Your task to perform on an android device: Play the last video I watched on Youtube Image 0: 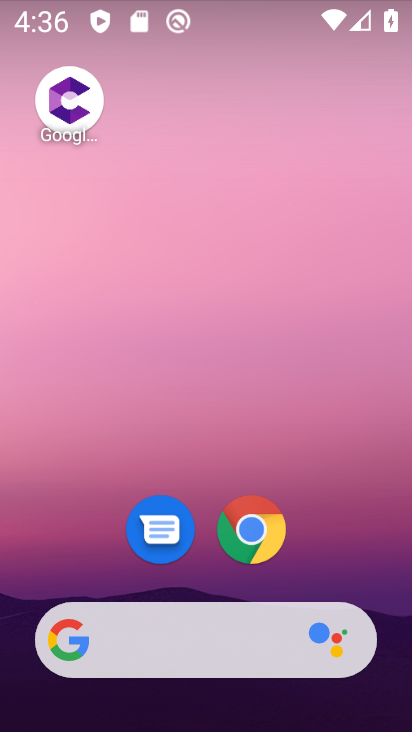
Step 0: drag from (341, 547) to (254, 84)
Your task to perform on an android device: Play the last video I watched on Youtube Image 1: 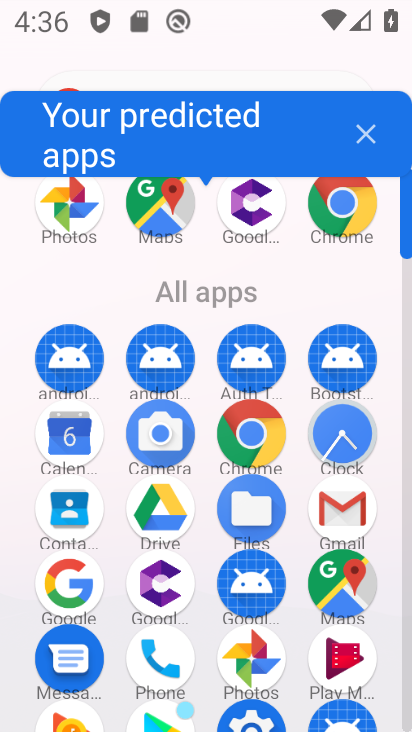
Step 1: drag from (193, 646) to (189, 254)
Your task to perform on an android device: Play the last video I watched on Youtube Image 2: 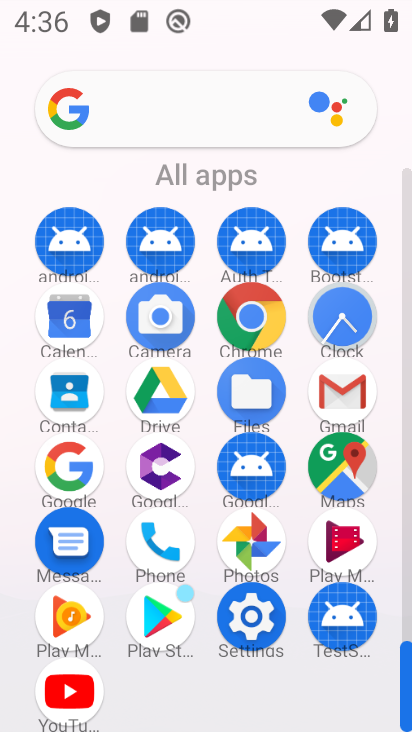
Step 2: click (77, 692)
Your task to perform on an android device: Play the last video I watched on Youtube Image 3: 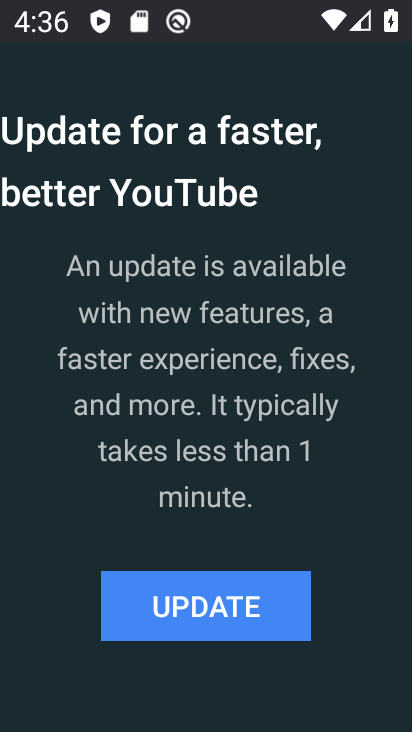
Step 3: click (240, 609)
Your task to perform on an android device: Play the last video I watched on Youtube Image 4: 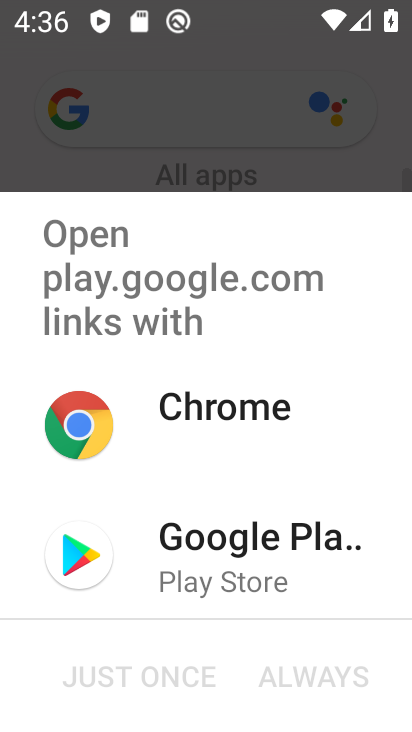
Step 4: click (206, 553)
Your task to perform on an android device: Play the last video I watched on Youtube Image 5: 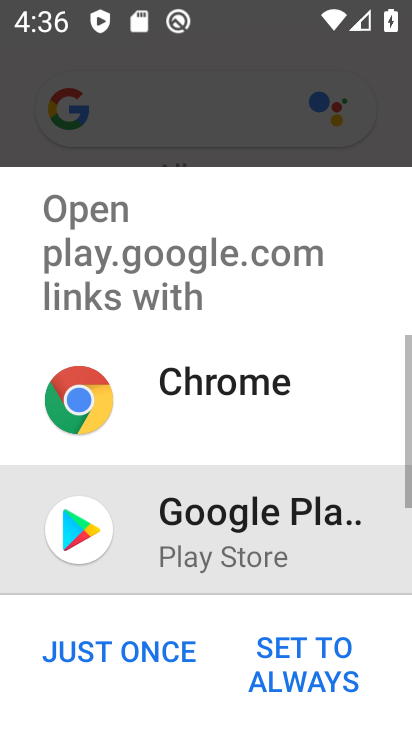
Step 5: click (113, 654)
Your task to perform on an android device: Play the last video I watched on Youtube Image 6: 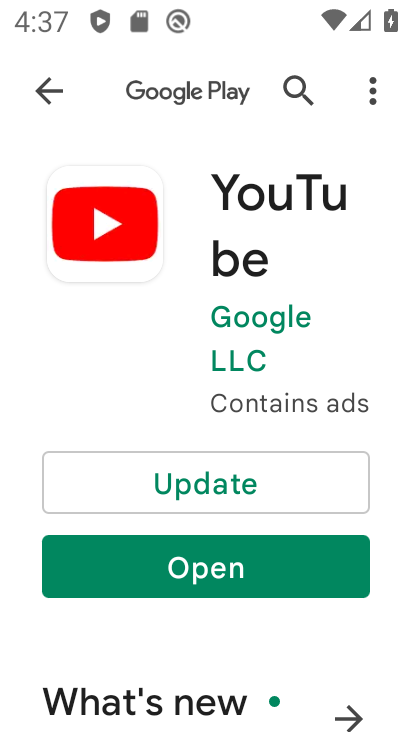
Step 6: click (212, 568)
Your task to perform on an android device: Play the last video I watched on Youtube Image 7: 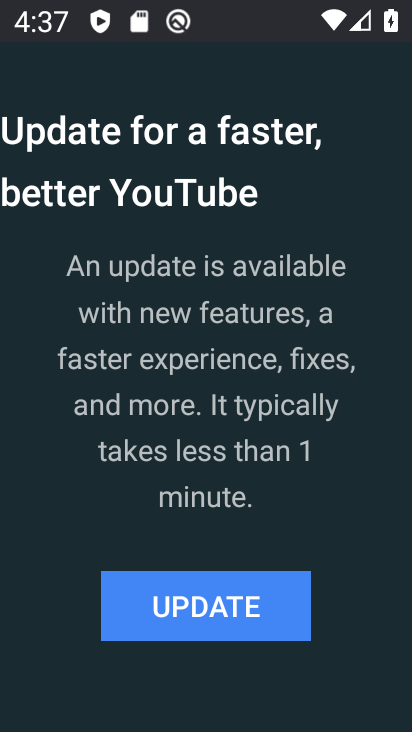
Step 7: click (223, 618)
Your task to perform on an android device: Play the last video I watched on Youtube Image 8: 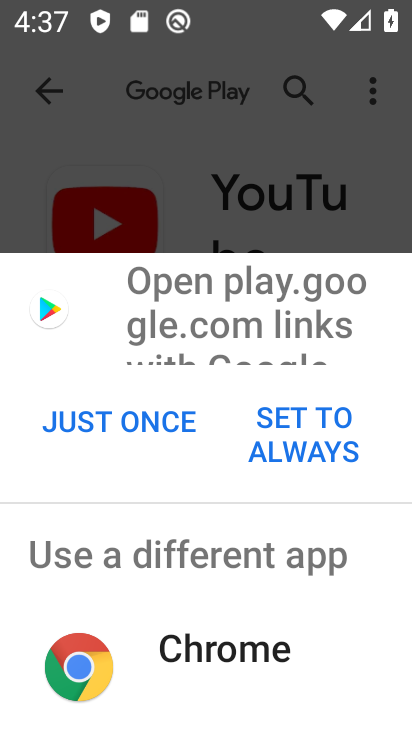
Step 8: click (133, 418)
Your task to perform on an android device: Play the last video I watched on Youtube Image 9: 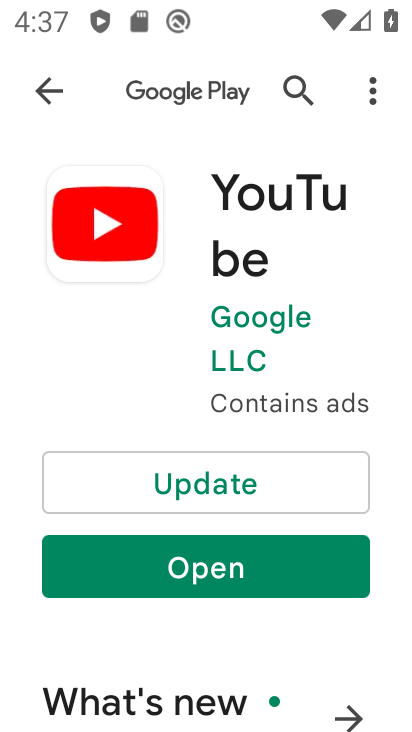
Step 9: click (194, 482)
Your task to perform on an android device: Play the last video I watched on Youtube Image 10: 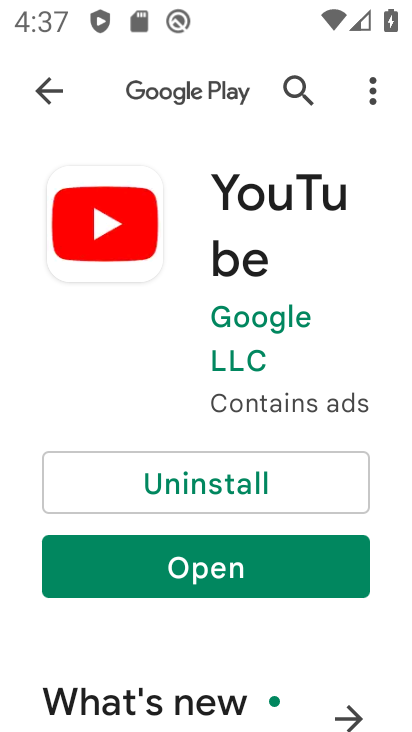
Step 10: click (312, 581)
Your task to perform on an android device: Play the last video I watched on Youtube Image 11: 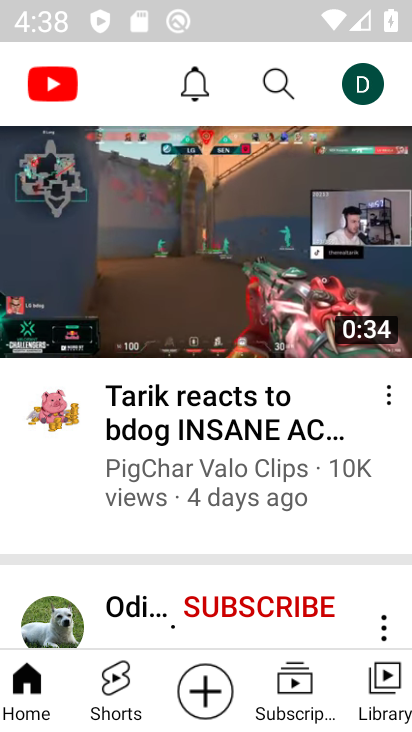
Step 11: click (382, 694)
Your task to perform on an android device: Play the last video I watched on Youtube Image 12: 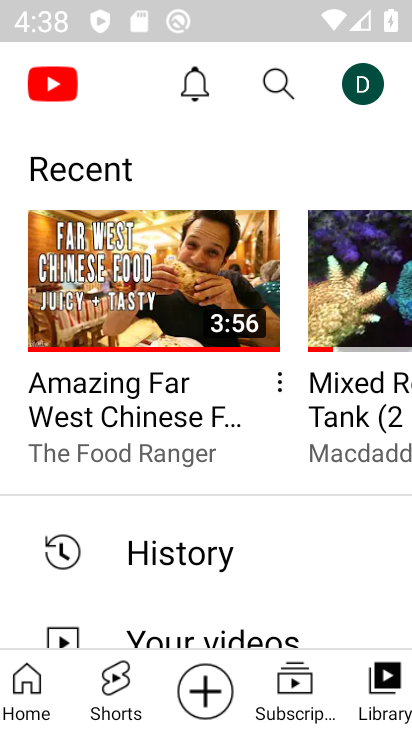
Step 12: click (149, 299)
Your task to perform on an android device: Play the last video I watched on Youtube Image 13: 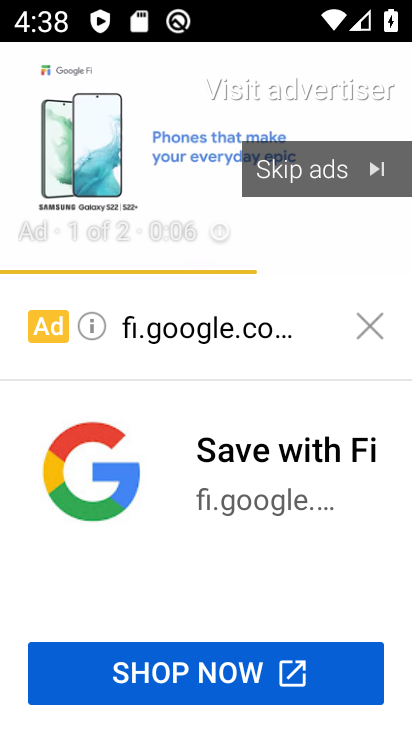
Step 13: task complete